Your task to perform on an android device: Search for custom wallets on Etsy. Image 0: 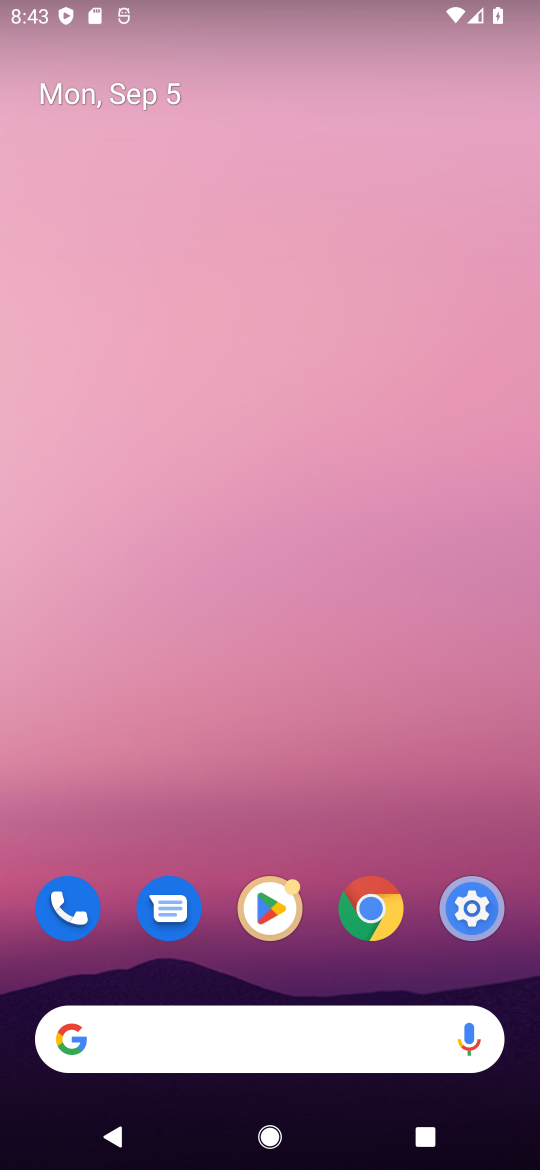
Step 0: click (359, 945)
Your task to perform on an android device: Search for custom wallets on Etsy. Image 1: 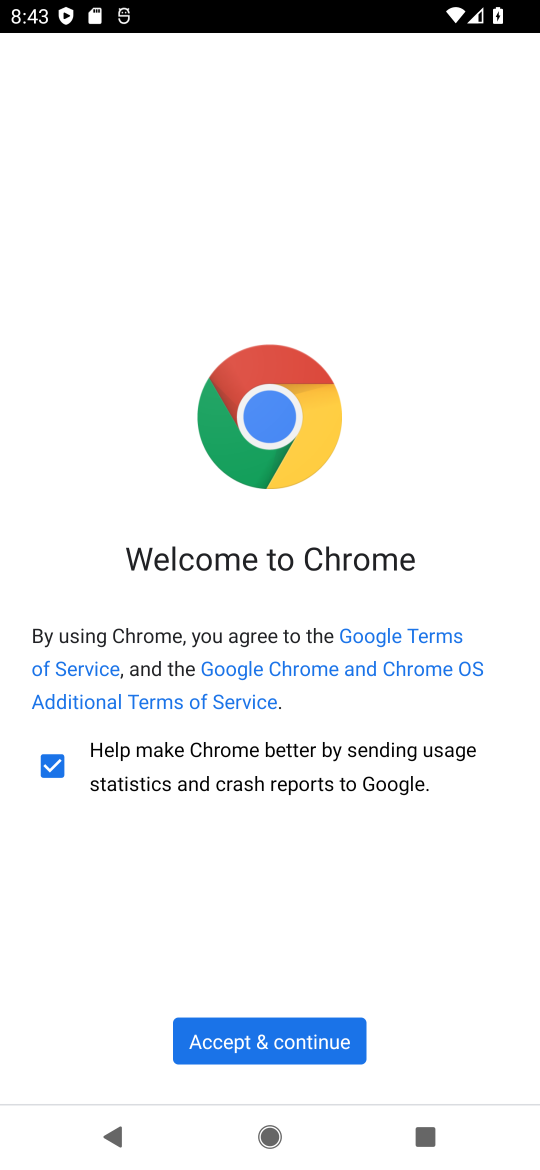
Step 1: click (290, 1031)
Your task to perform on an android device: Search for custom wallets on Etsy. Image 2: 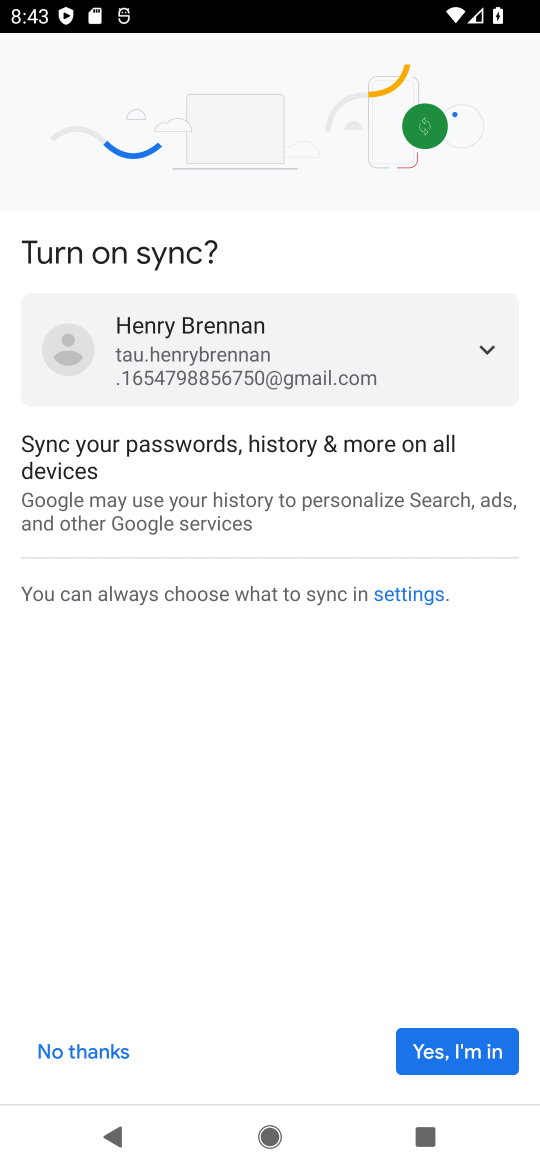
Step 2: click (429, 1056)
Your task to perform on an android device: Search for custom wallets on Etsy. Image 3: 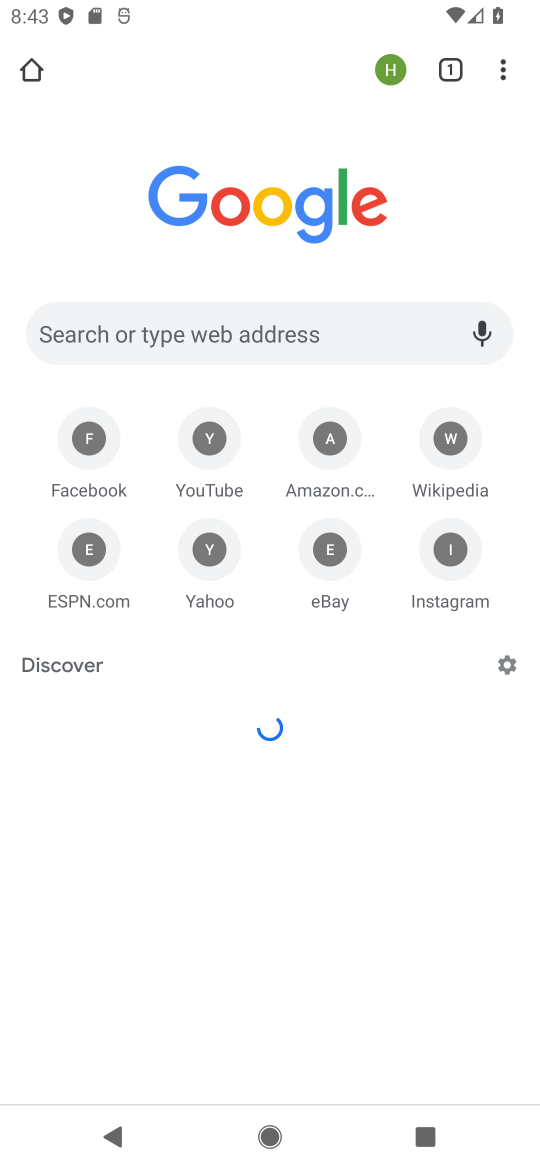
Step 3: click (200, 341)
Your task to perform on an android device: Search for custom wallets on Etsy. Image 4: 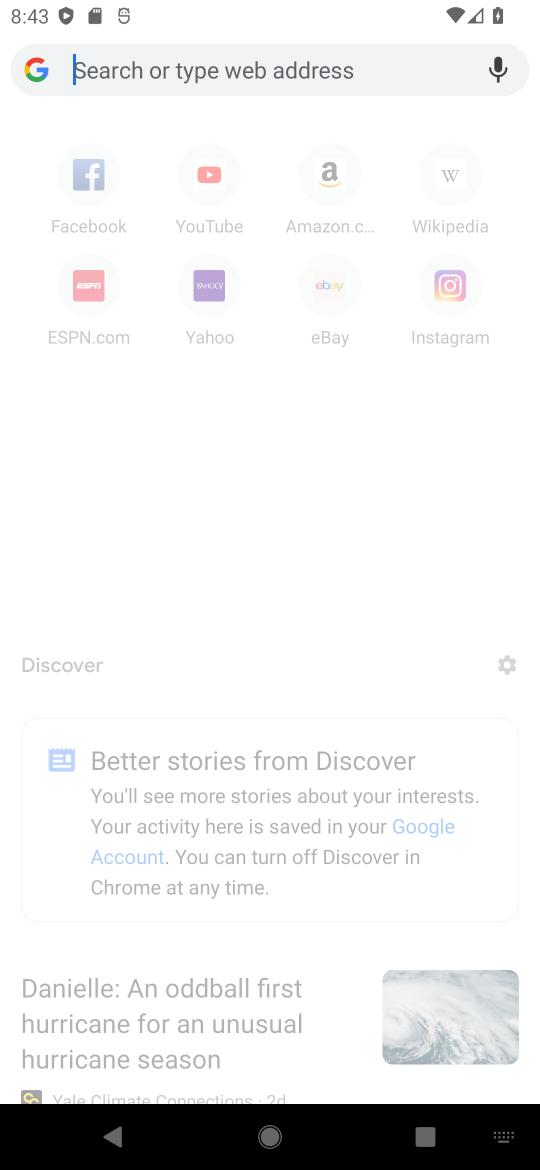
Step 4: type "Etsy"
Your task to perform on an android device: Search for custom wallets on Etsy. Image 5: 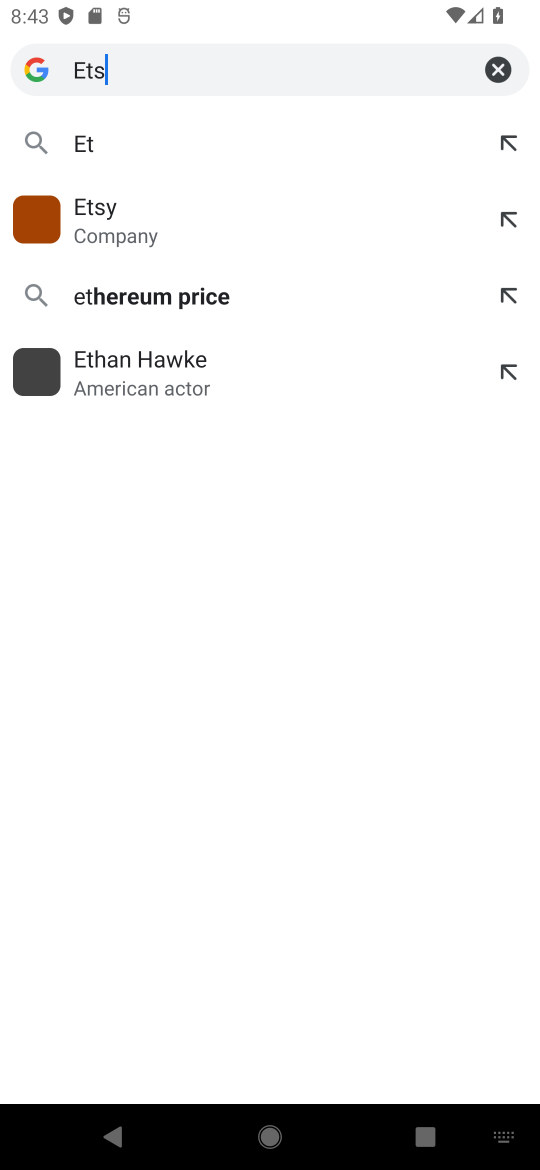
Step 5: type ""
Your task to perform on an android device: Search for custom wallets on Etsy. Image 6: 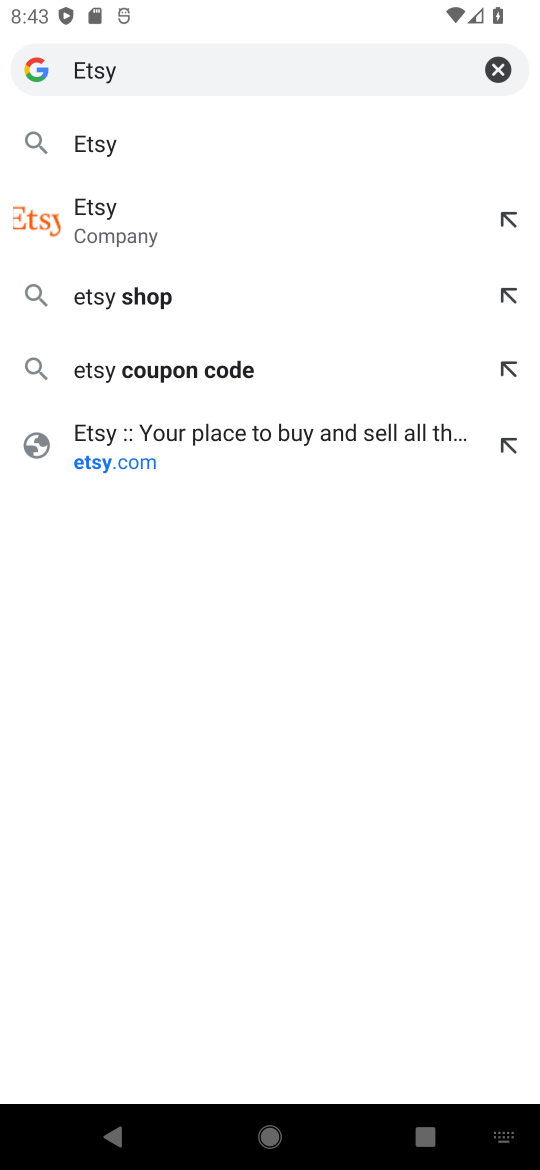
Step 6: click (147, 129)
Your task to perform on an android device: Search for custom wallets on Etsy. Image 7: 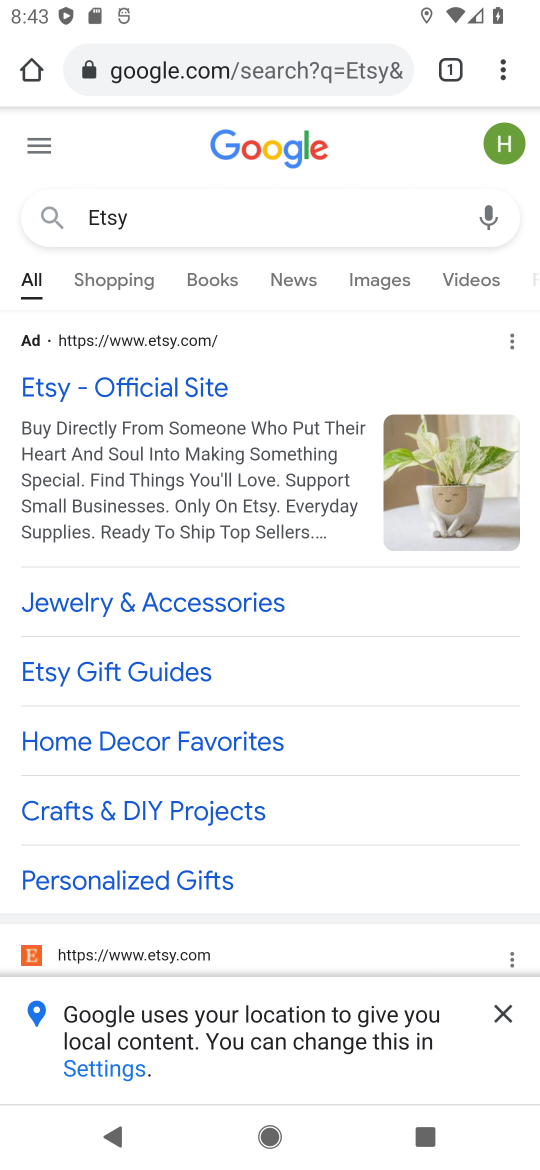
Step 7: click (161, 391)
Your task to perform on an android device: Search for custom wallets on Etsy. Image 8: 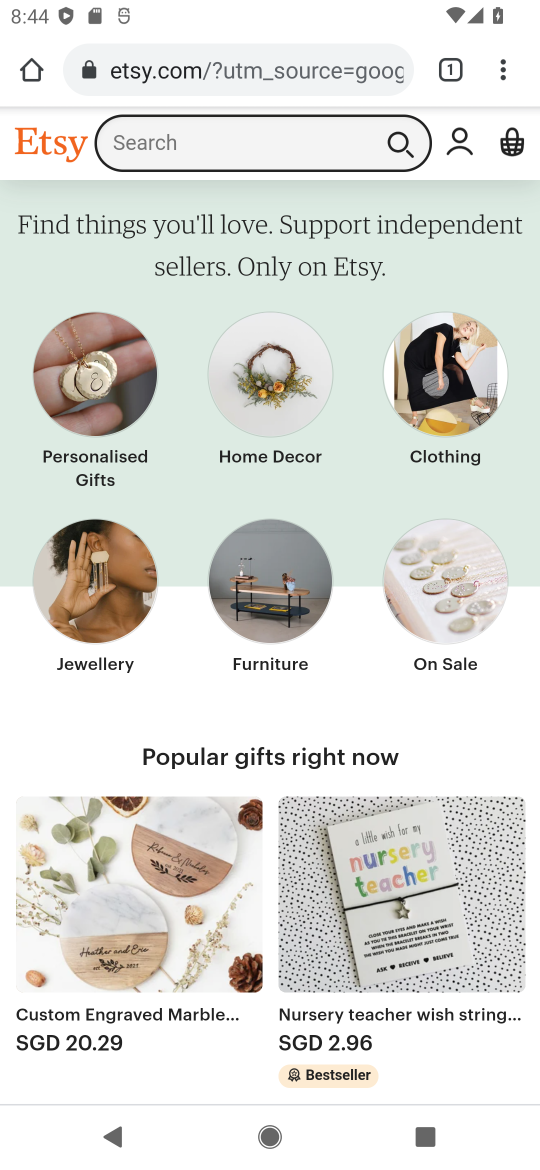
Step 8: click (270, 136)
Your task to perform on an android device: Search for custom wallets on Etsy. Image 9: 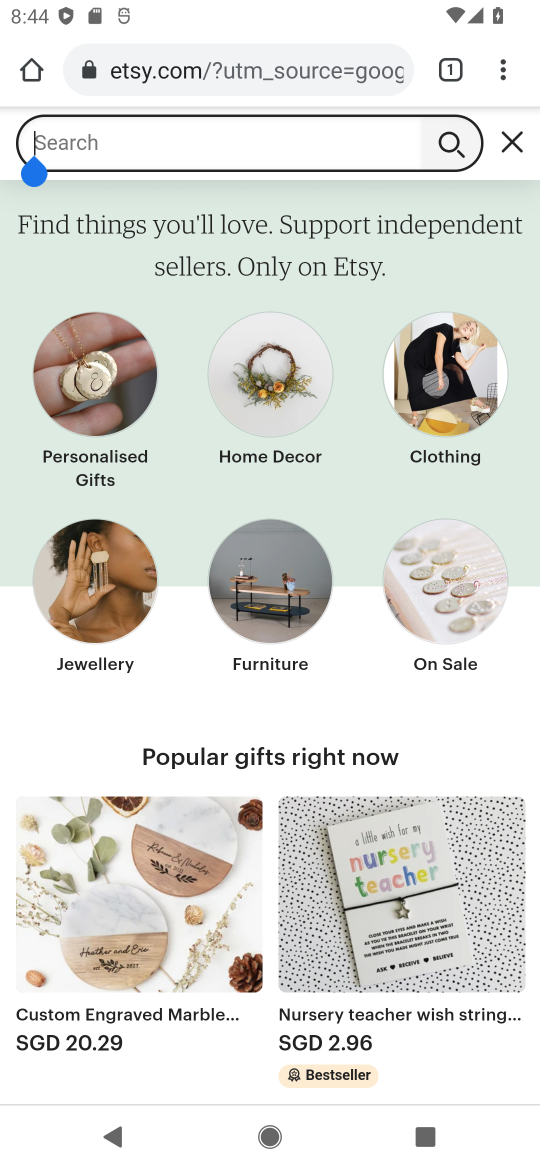
Step 9: type "custom wallet"
Your task to perform on an android device: Search for custom wallets on Etsy. Image 10: 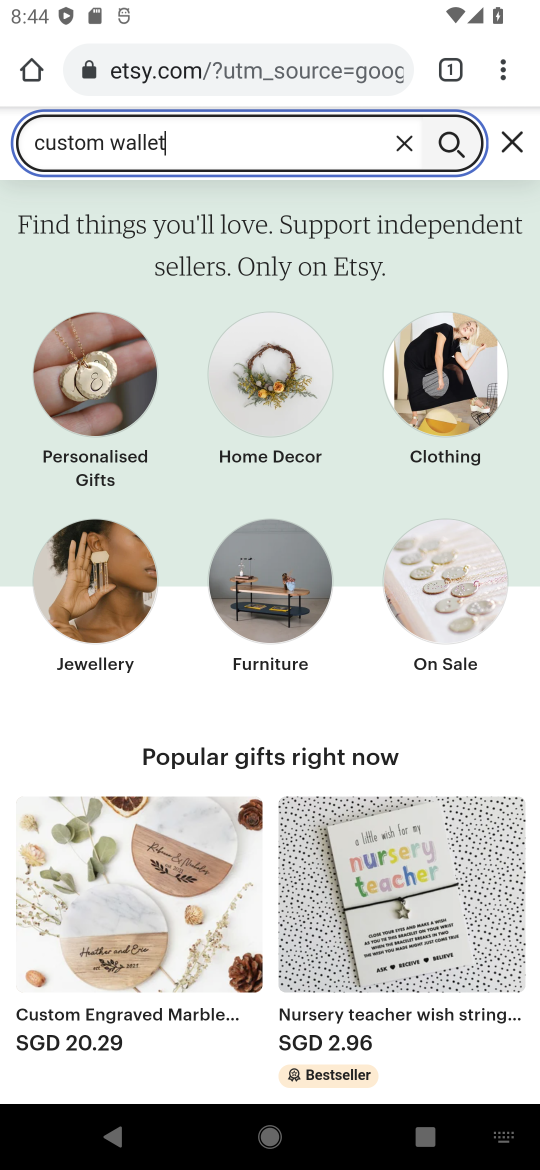
Step 10: click (441, 141)
Your task to perform on an android device: Search for custom wallets on Etsy. Image 11: 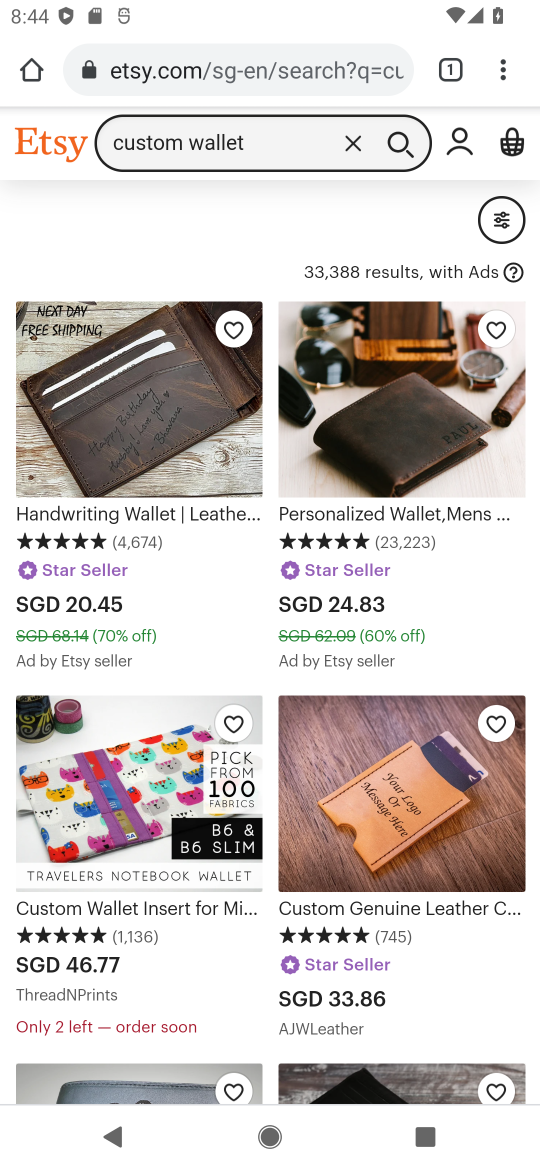
Step 11: task complete